Your task to perform on an android device: Open calendar and show me the fourth week of next month Image 0: 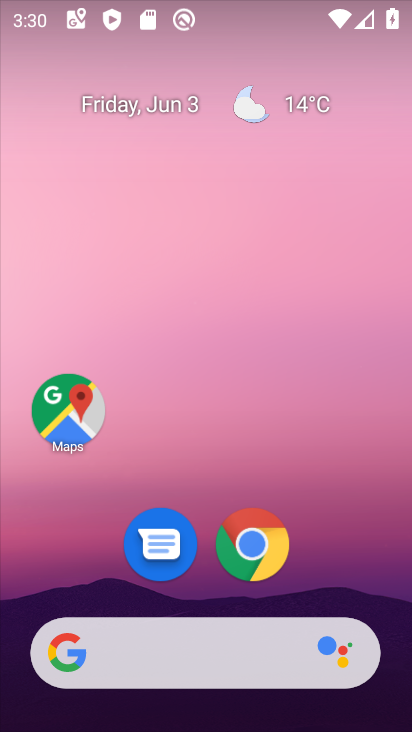
Step 0: drag from (391, 627) to (350, 40)
Your task to perform on an android device: Open calendar and show me the fourth week of next month Image 1: 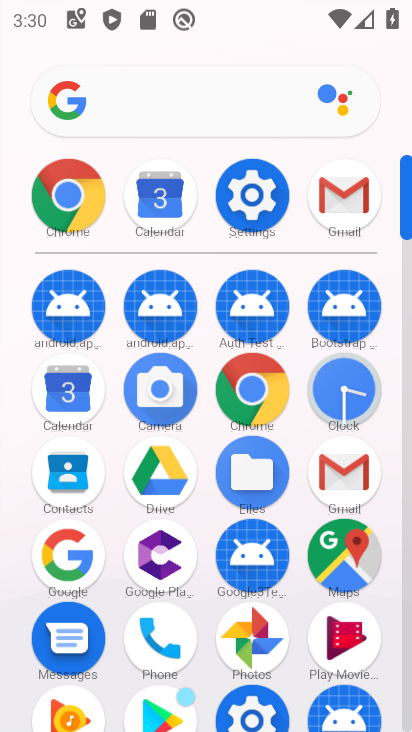
Step 1: click (404, 651)
Your task to perform on an android device: Open calendar and show me the fourth week of next month Image 2: 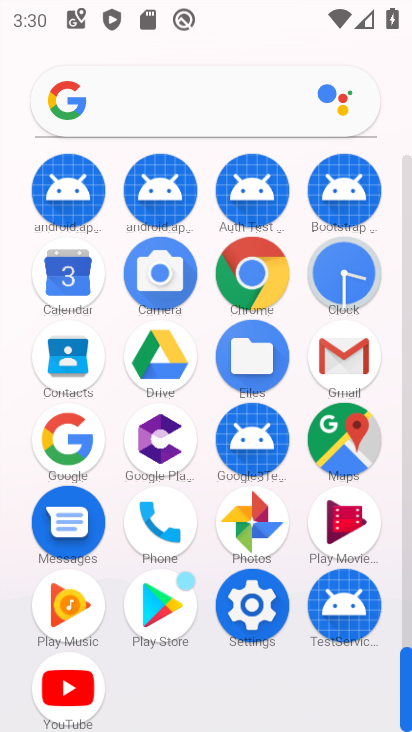
Step 2: click (69, 273)
Your task to perform on an android device: Open calendar and show me the fourth week of next month Image 3: 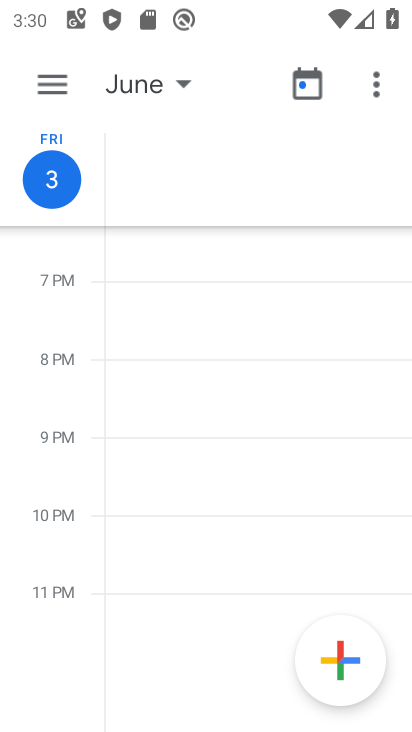
Step 3: click (58, 85)
Your task to perform on an android device: Open calendar and show me the fourth week of next month Image 4: 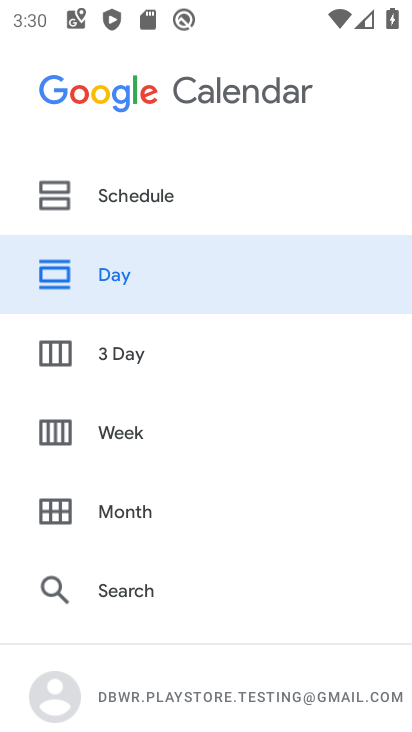
Step 4: click (117, 444)
Your task to perform on an android device: Open calendar and show me the fourth week of next month Image 5: 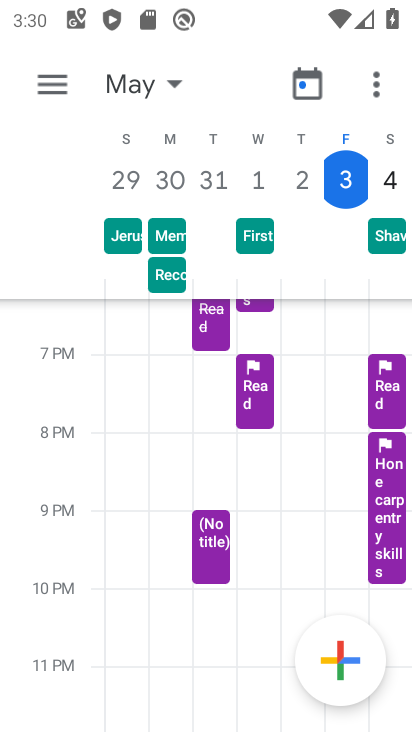
Step 5: click (171, 77)
Your task to perform on an android device: Open calendar and show me the fourth week of next month Image 6: 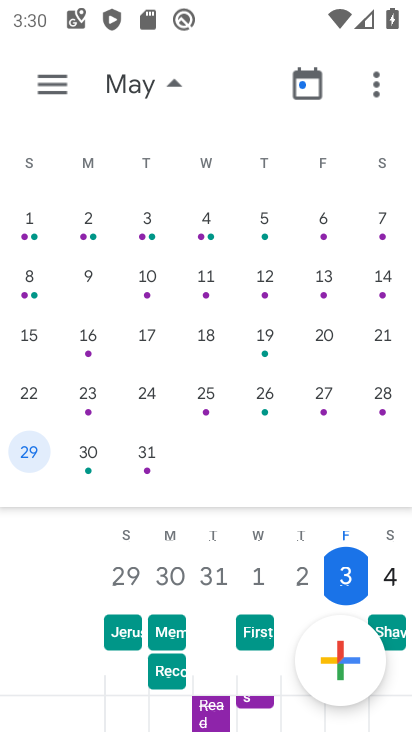
Step 6: drag from (381, 319) to (4, 288)
Your task to perform on an android device: Open calendar and show me the fourth week of next month Image 7: 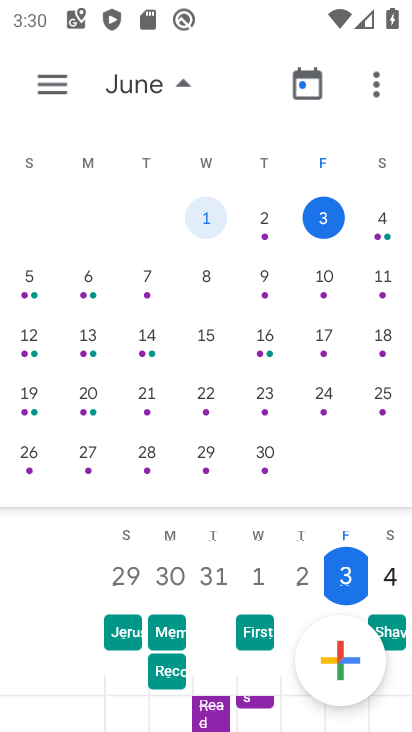
Step 7: drag from (388, 343) to (22, 306)
Your task to perform on an android device: Open calendar and show me the fourth week of next month Image 8: 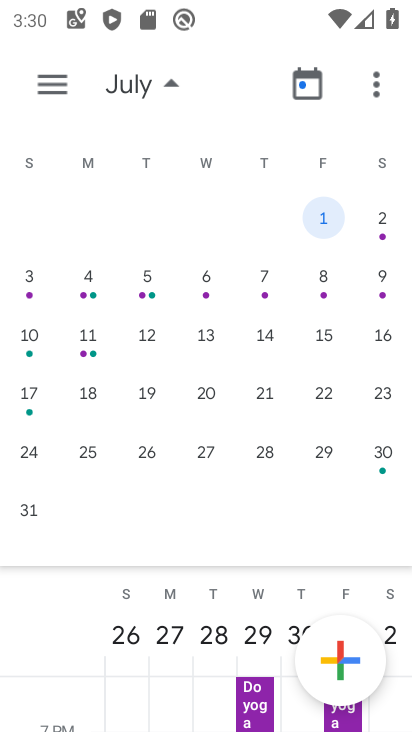
Step 8: click (25, 445)
Your task to perform on an android device: Open calendar and show me the fourth week of next month Image 9: 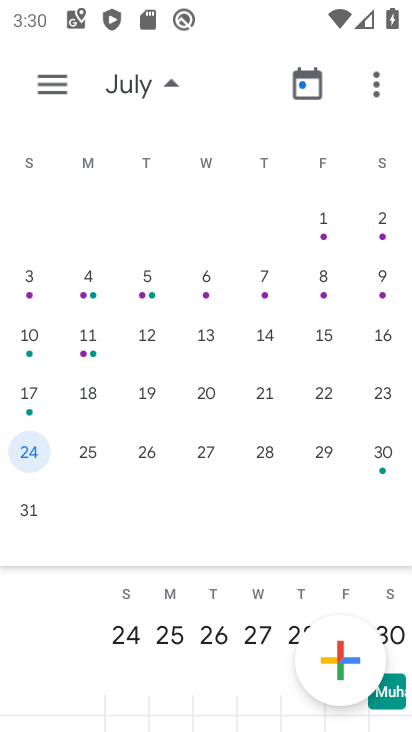
Step 9: task complete